Your task to perform on an android device: toggle airplane mode Image 0: 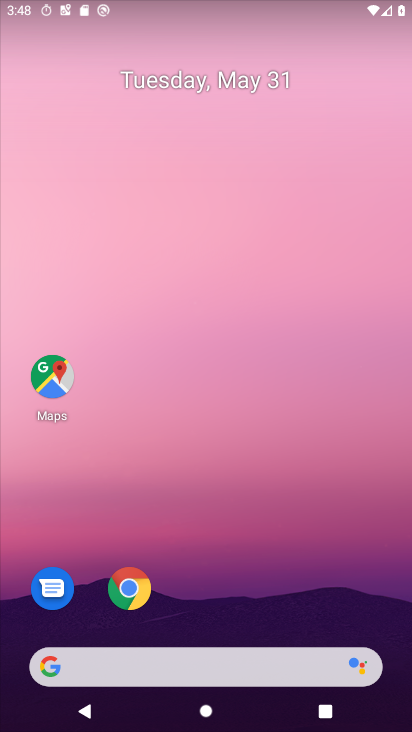
Step 0: drag from (250, 646) to (244, 130)
Your task to perform on an android device: toggle airplane mode Image 1: 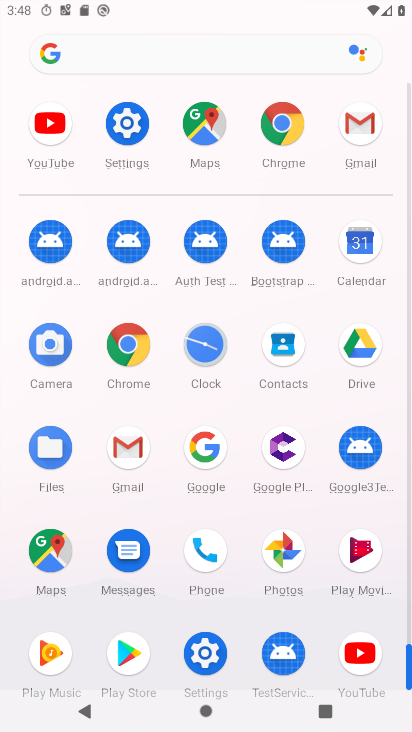
Step 1: click (128, 143)
Your task to perform on an android device: toggle airplane mode Image 2: 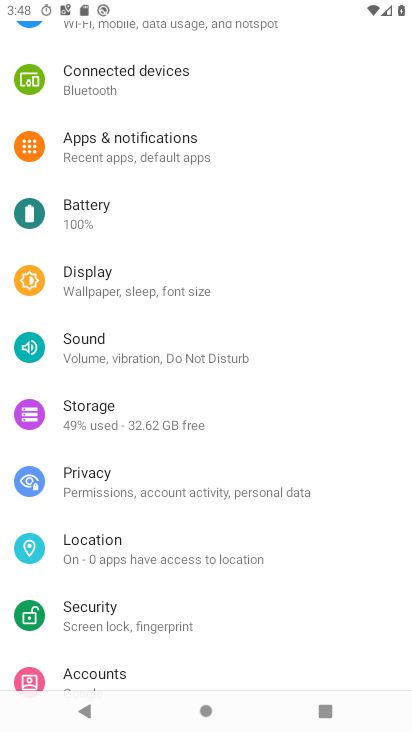
Step 2: press home button
Your task to perform on an android device: toggle airplane mode Image 3: 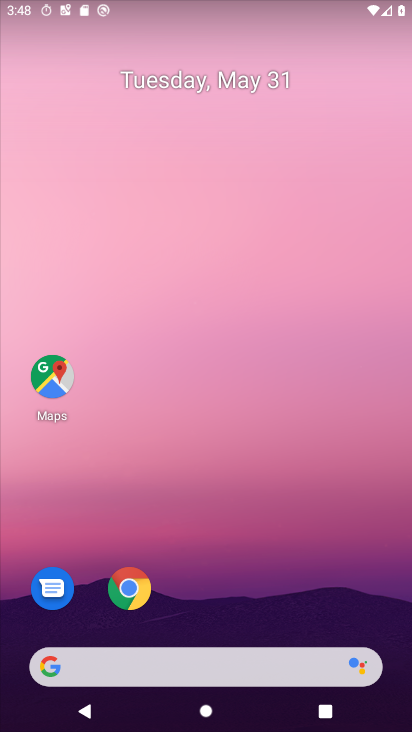
Step 3: drag from (203, 660) to (306, 174)
Your task to perform on an android device: toggle airplane mode Image 4: 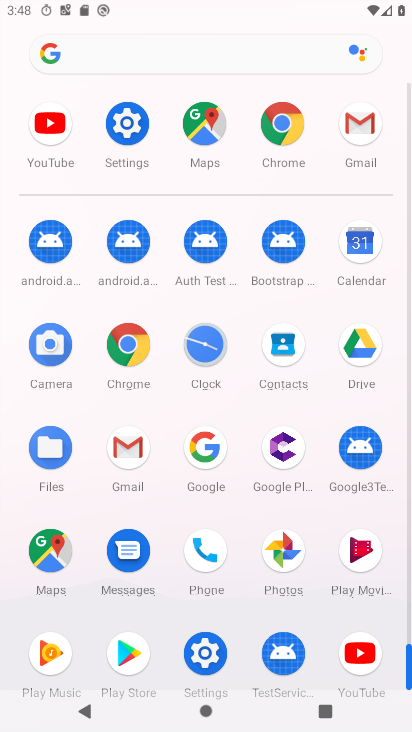
Step 4: click (132, 155)
Your task to perform on an android device: toggle airplane mode Image 5: 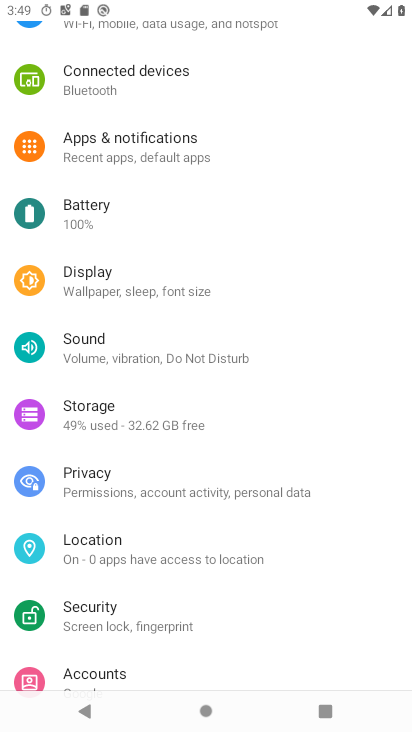
Step 5: drag from (146, 323) to (133, 475)
Your task to perform on an android device: toggle airplane mode Image 6: 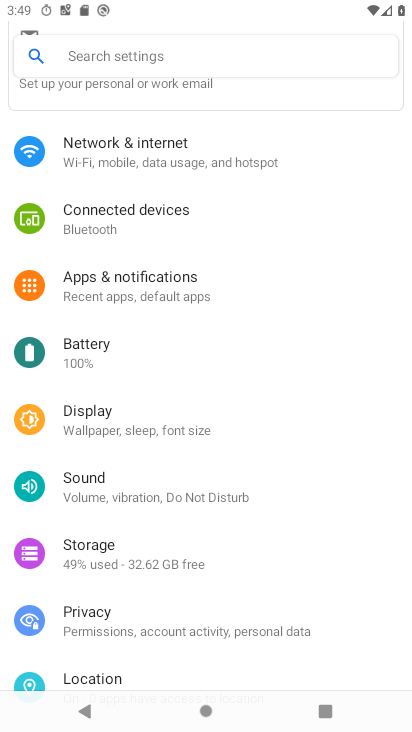
Step 6: drag from (144, 338) to (105, 580)
Your task to perform on an android device: toggle airplane mode Image 7: 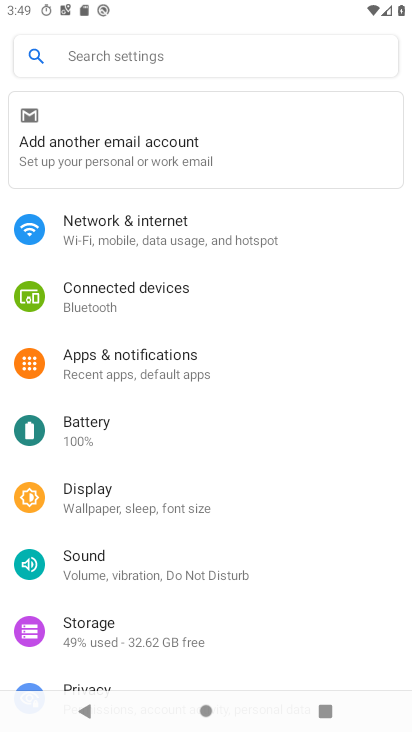
Step 7: click (156, 235)
Your task to perform on an android device: toggle airplane mode Image 8: 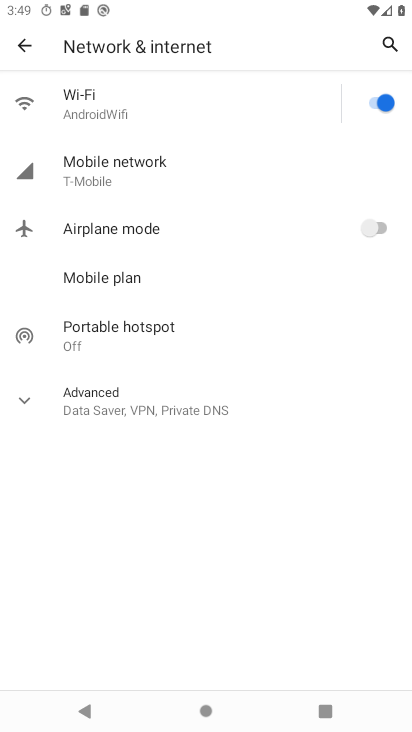
Step 8: click (183, 234)
Your task to perform on an android device: toggle airplane mode Image 9: 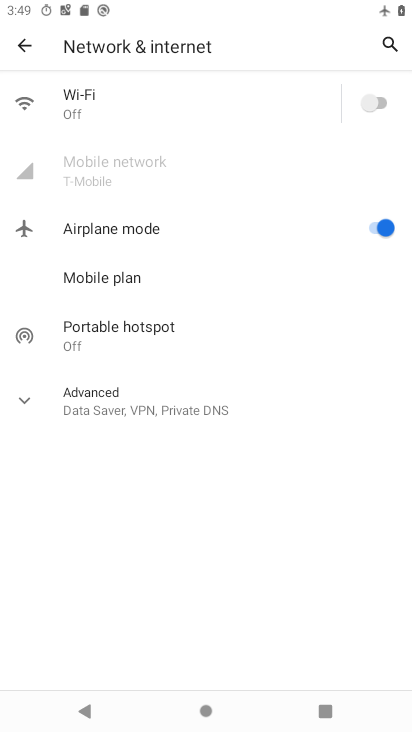
Step 9: task complete